Your task to perform on an android device: turn off location Image 0: 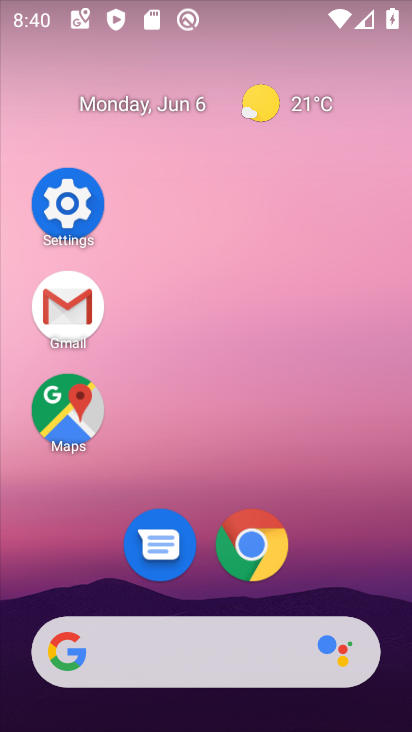
Step 0: click (55, 197)
Your task to perform on an android device: turn off location Image 1: 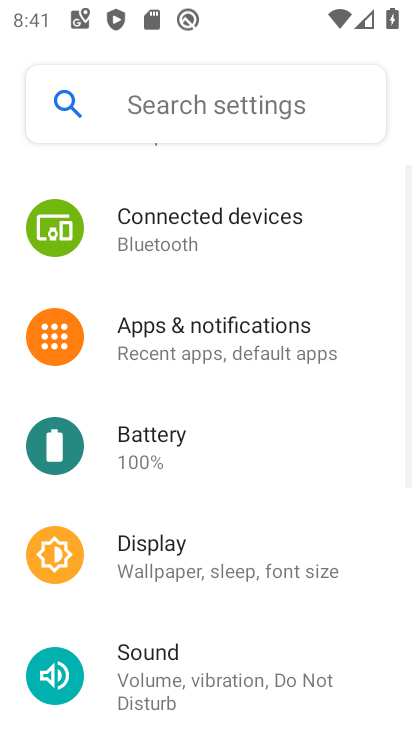
Step 1: drag from (277, 624) to (214, 198)
Your task to perform on an android device: turn off location Image 2: 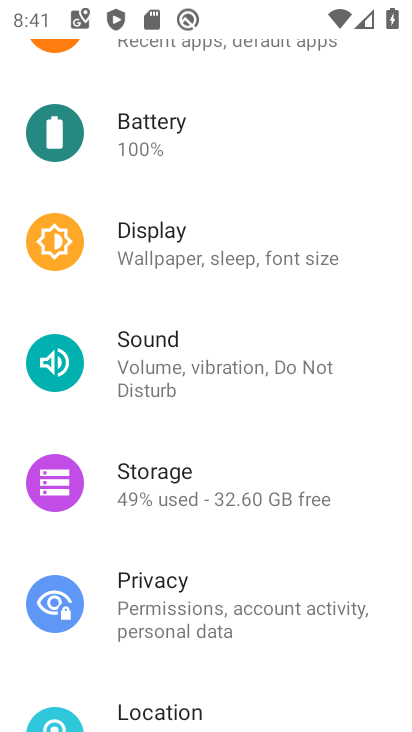
Step 2: drag from (160, 653) to (119, 274)
Your task to perform on an android device: turn off location Image 3: 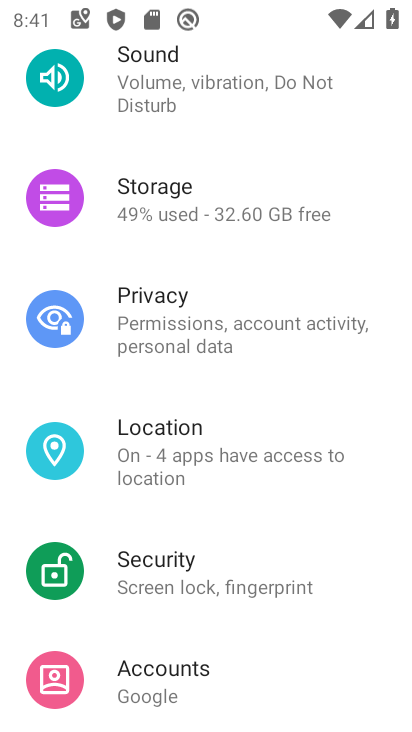
Step 3: click (163, 455)
Your task to perform on an android device: turn off location Image 4: 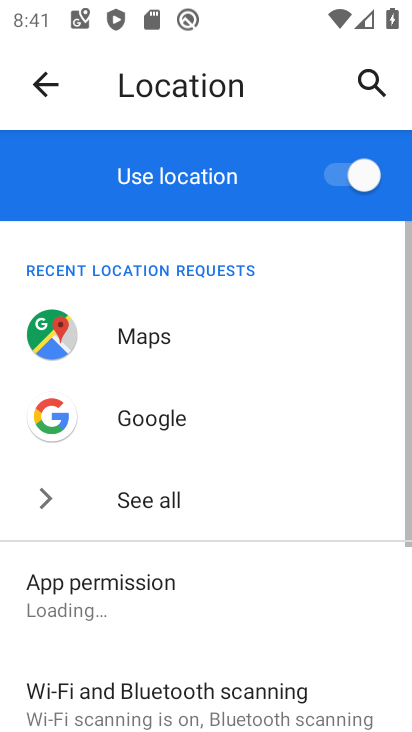
Step 4: click (350, 166)
Your task to perform on an android device: turn off location Image 5: 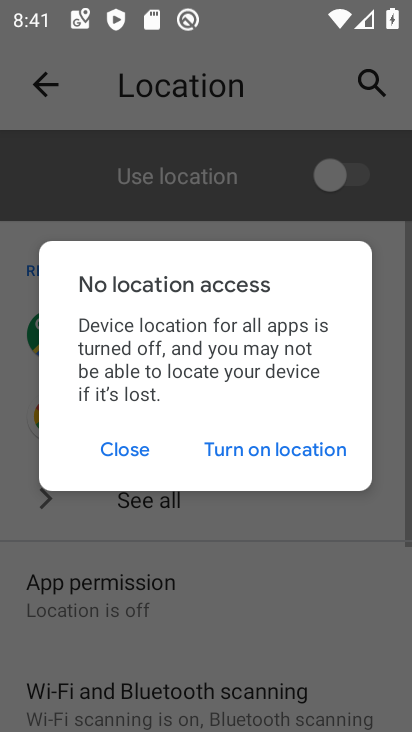
Step 5: task complete